Your task to perform on an android device: turn on data saver in the chrome app Image 0: 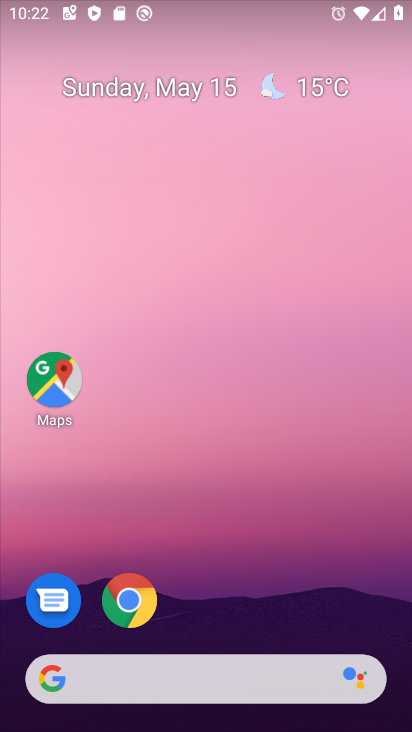
Step 0: drag from (362, 595) to (398, 117)
Your task to perform on an android device: turn on data saver in the chrome app Image 1: 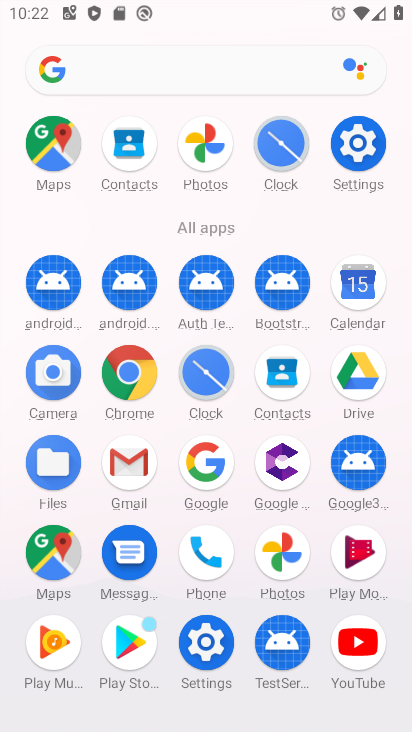
Step 1: click (143, 380)
Your task to perform on an android device: turn on data saver in the chrome app Image 2: 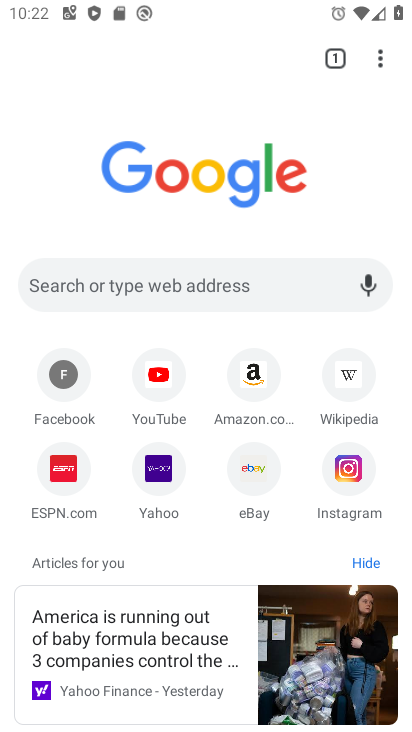
Step 2: click (378, 64)
Your task to perform on an android device: turn on data saver in the chrome app Image 3: 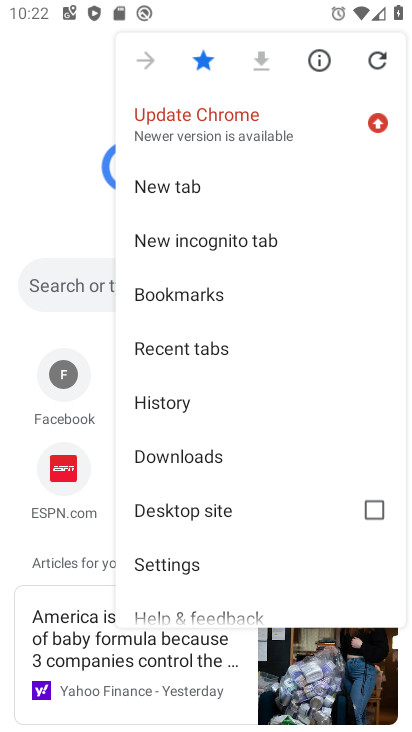
Step 3: click (189, 565)
Your task to perform on an android device: turn on data saver in the chrome app Image 4: 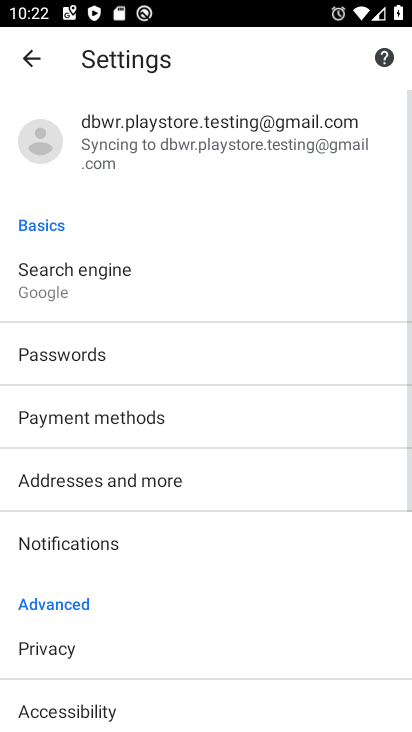
Step 4: drag from (242, 584) to (269, 442)
Your task to perform on an android device: turn on data saver in the chrome app Image 5: 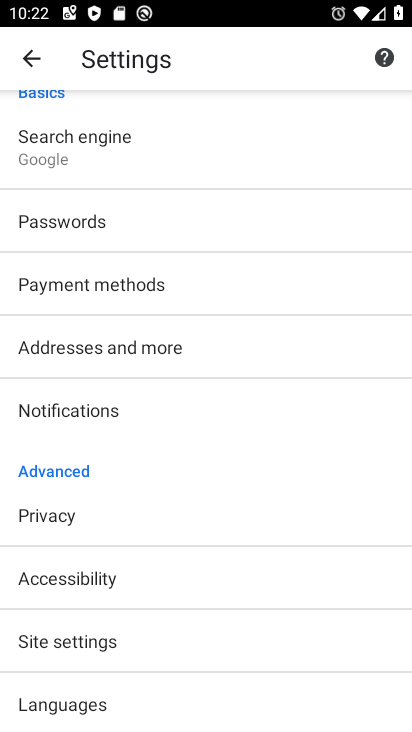
Step 5: drag from (311, 682) to (334, 492)
Your task to perform on an android device: turn on data saver in the chrome app Image 6: 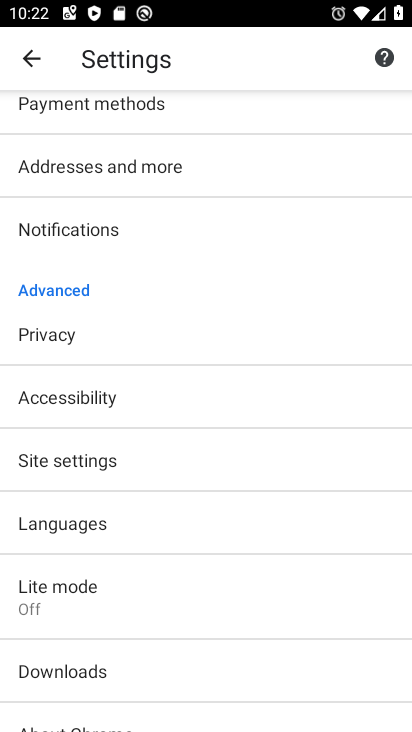
Step 6: drag from (313, 680) to (325, 536)
Your task to perform on an android device: turn on data saver in the chrome app Image 7: 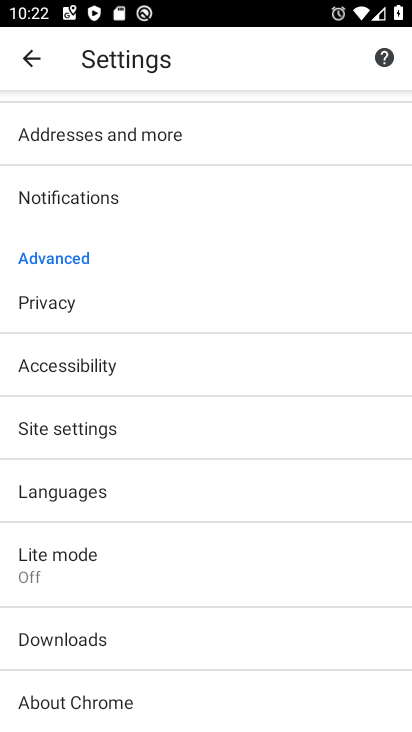
Step 7: click (167, 575)
Your task to perform on an android device: turn on data saver in the chrome app Image 8: 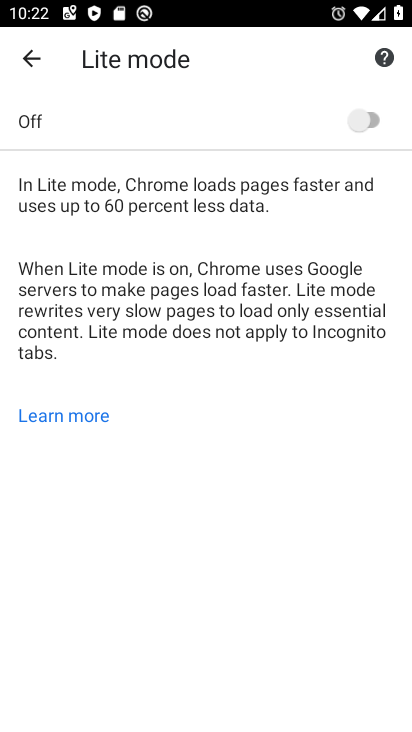
Step 8: click (356, 118)
Your task to perform on an android device: turn on data saver in the chrome app Image 9: 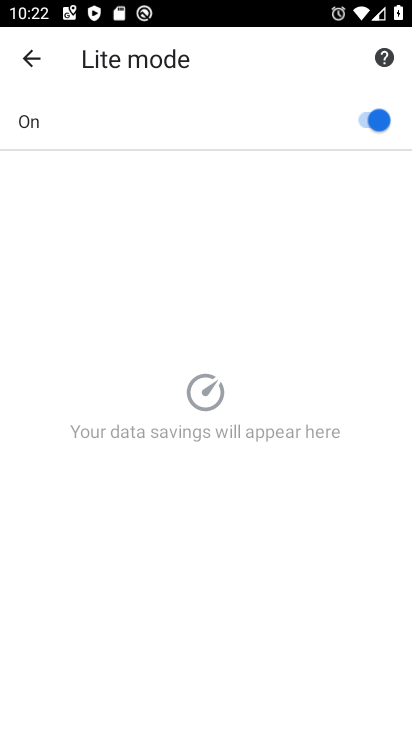
Step 9: task complete